Your task to perform on an android device: Open network settings Image 0: 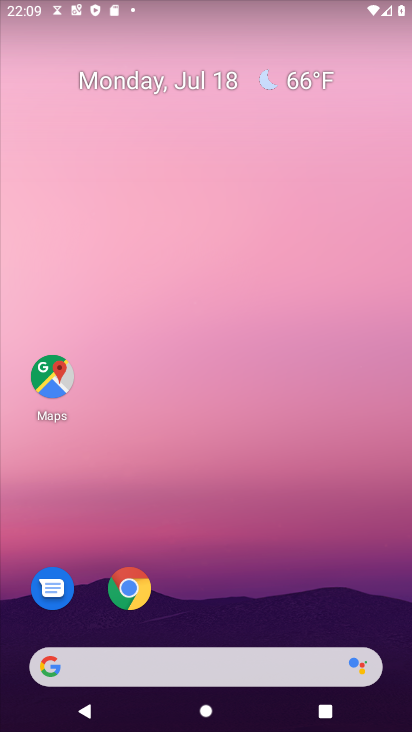
Step 0: press home button
Your task to perform on an android device: Open network settings Image 1: 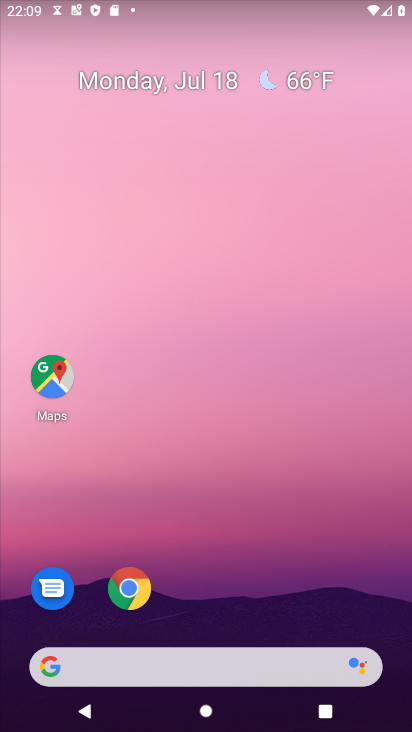
Step 1: drag from (140, 661) to (301, 125)
Your task to perform on an android device: Open network settings Image 2: 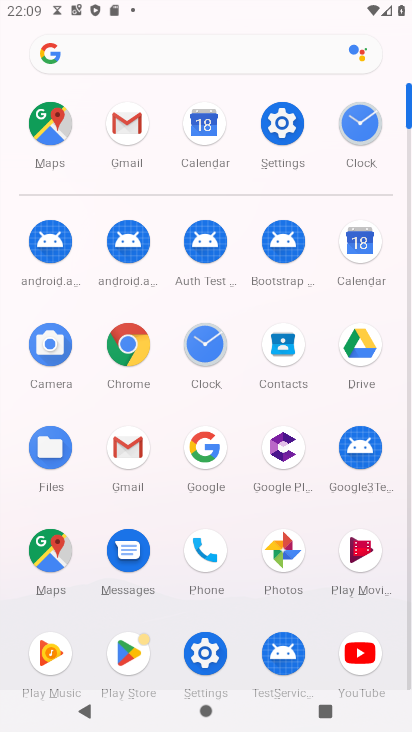
Step 2: click (283, 126)
Your task to perform on an android device: Open network settings Image 3: 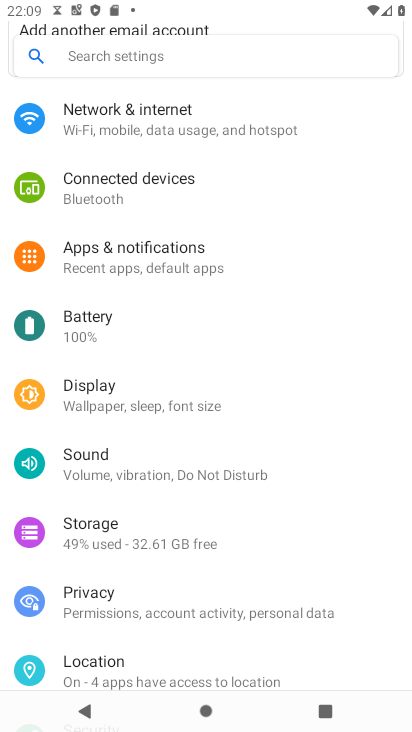
Step 3: click (160, 118)
Your task to perform on an android device: Open network settings Image 4: 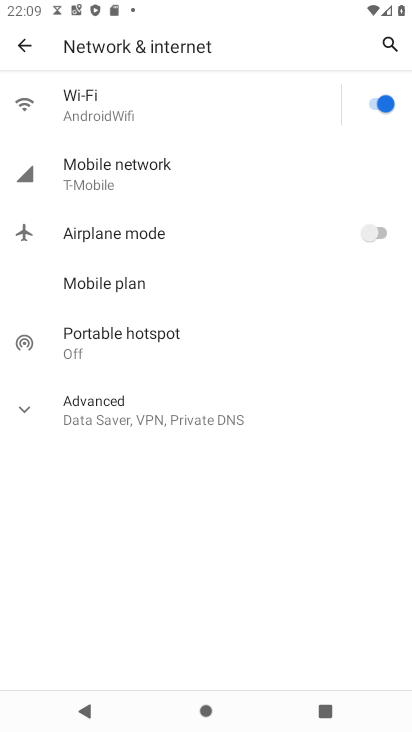
Step 4: click (142, 172)
Your task to perform on an android device: Open network settings Image 5: 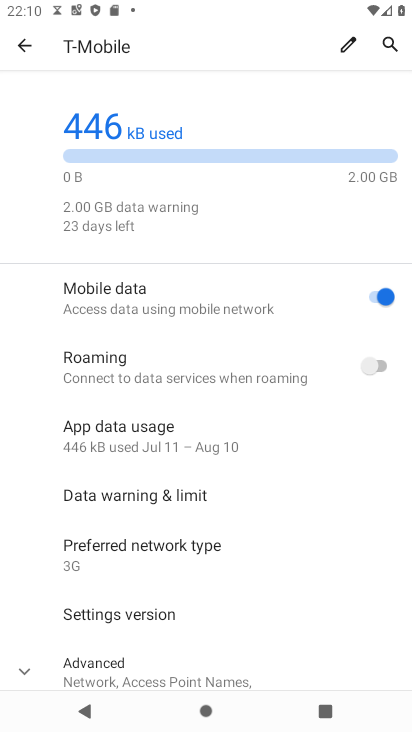
Step 5: task complete